Your task to perform on an android device: Open Youtube and go to the subscriptions tab Image 0: 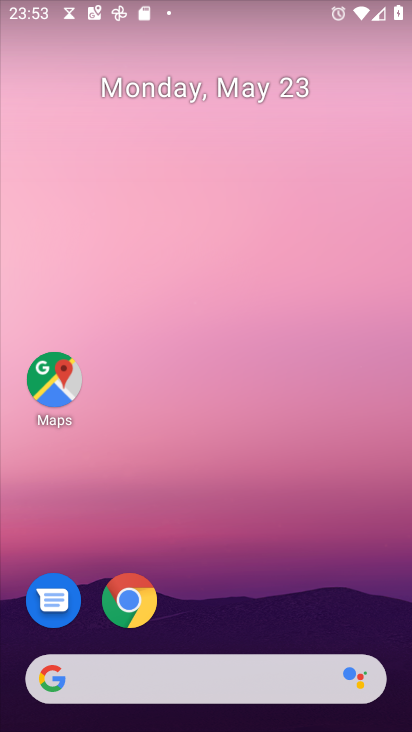
Step 0: drag from (217, 681) to (215, 195)
Your task to perform on an android device: Open Youtube and go to the subscriptions tab Image 1: 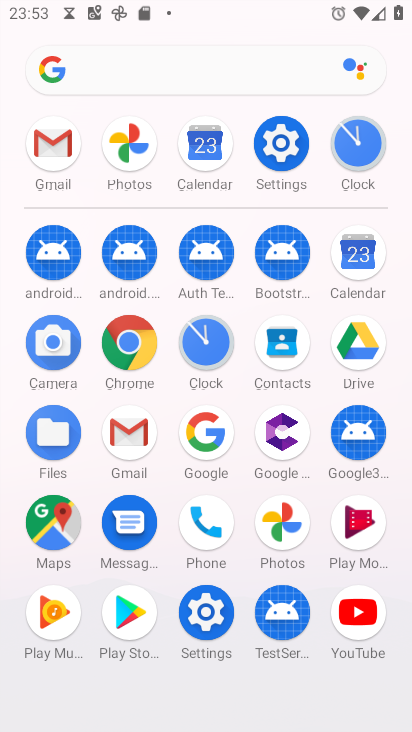
Step 1: click (356, 609)
Your task to perform on an android device: Open Youtube and go to the subscriptions tab Image 2: 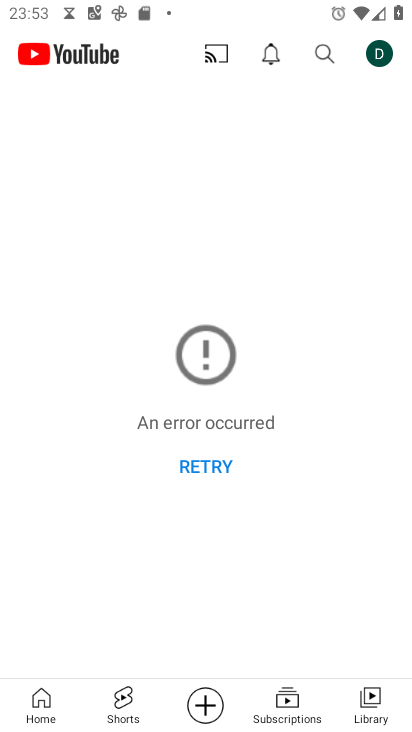
Step 2: click (284, 709)
Your task to perform on an android device: Open Youtube and go to the subscriptions tab Image 3: 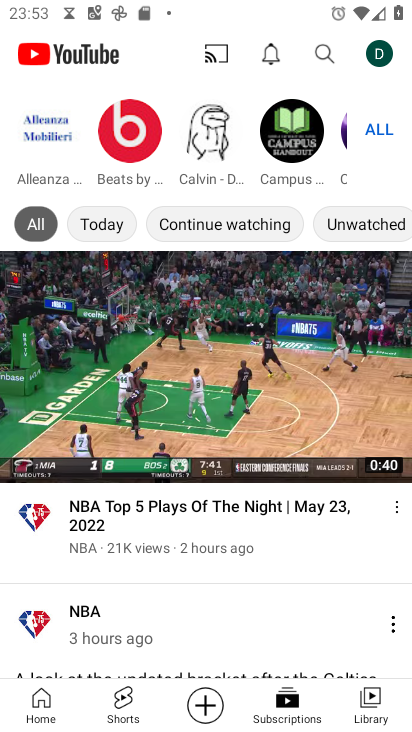
Step 3: task complete